Your task to perform on an android device: refresh tabs in the chrome app Image 0: 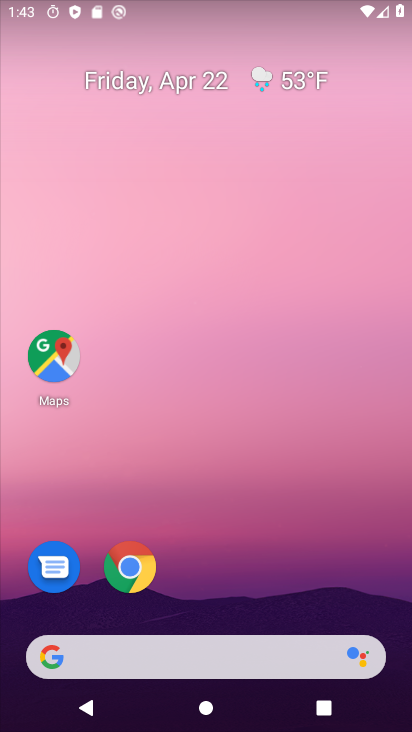
Step 0: click (137, 570)
Your task to perform on an android device: refresh tabs in the chrome app Image 1: 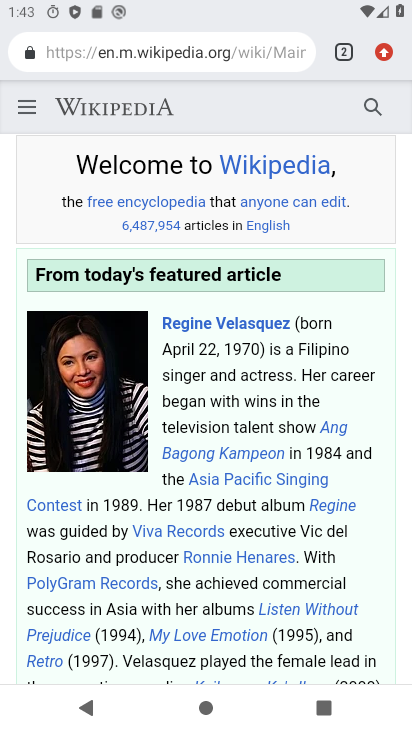
Step 1: click (383, 47)
Your task to perform on an android device: refresh tabs in the chrome app Image 2: 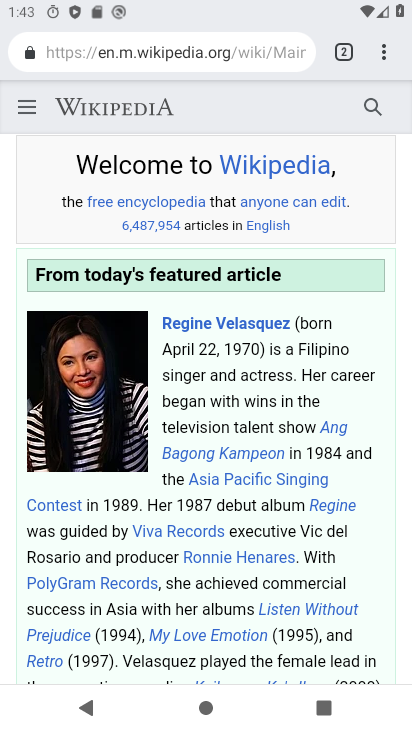
Step 2: task complete